Your task to perform on an android device: Show me the alarms in the clock app Image 0: 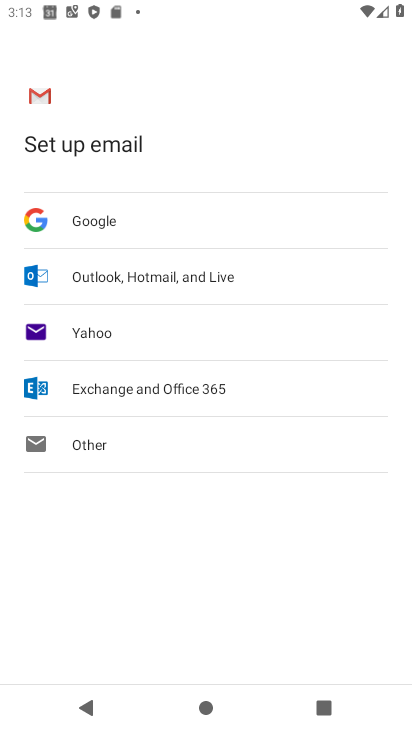
Step 0: press home button
Your task to perform on an android device: Show me the alarms in the clock app Image 1: 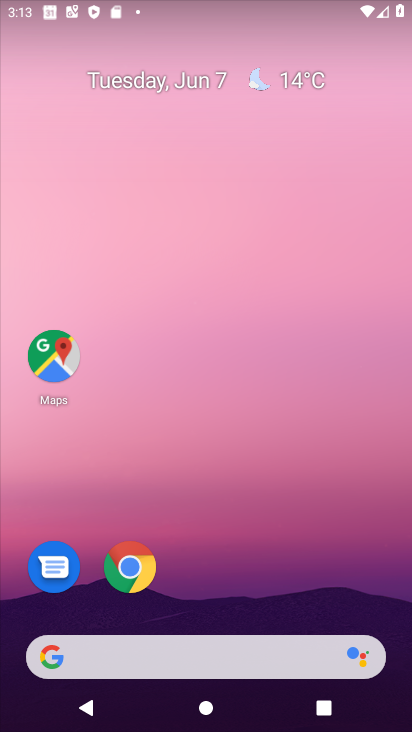
Step 1: drag from (204, 610) to (201, 242)
Your task to perform on an android device: Show me the alarms in the clock app Image 2: 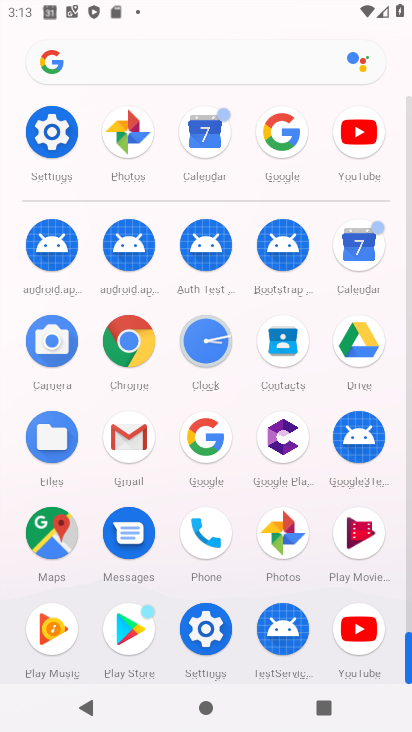
Step 2: click (224, 335)
Your task to perform on an android device: Show me the alarms in the clock app Image 3: 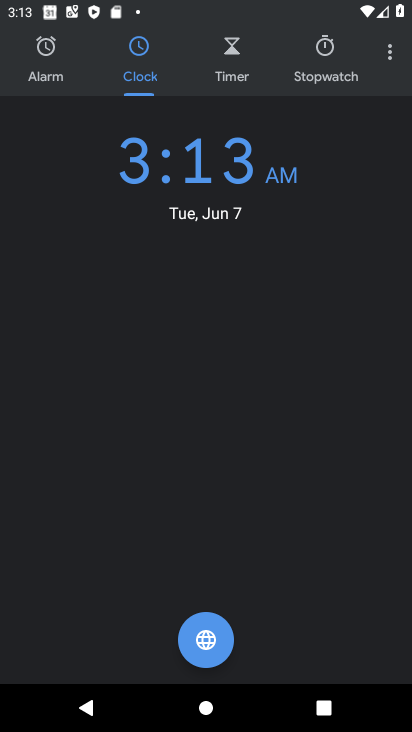
Step 3: click (380, 62)
Your task to perform on an android device: Show me the alarms in the clock app Image 4: 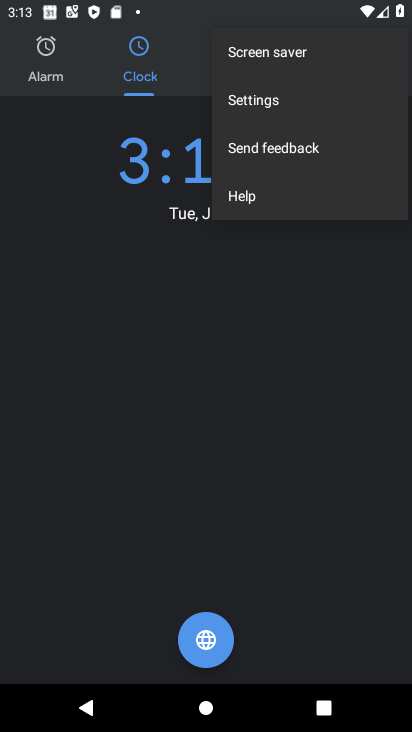
Step 4: click (44, 52)
Your task to perform on an android device: Show me the alarms in the clock app Image 5: 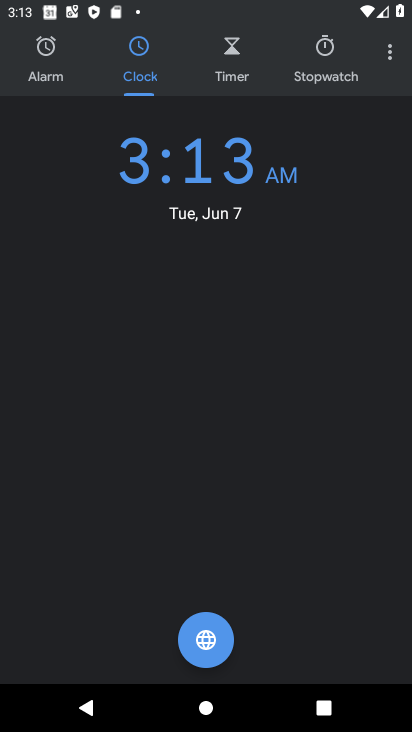
Step 5: click (44, 52)
Your task to perform on an android device: Show me the alarms in the clock app Image 6: 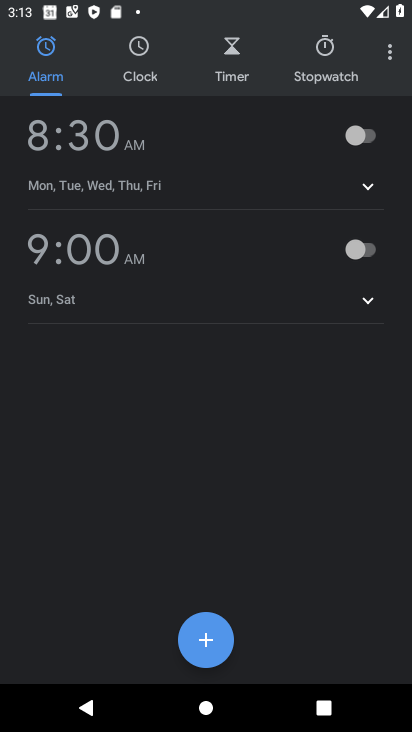
Step 6: task complete